Your task to perform on an android device: find snoozed emails in the gmail app Image 0: 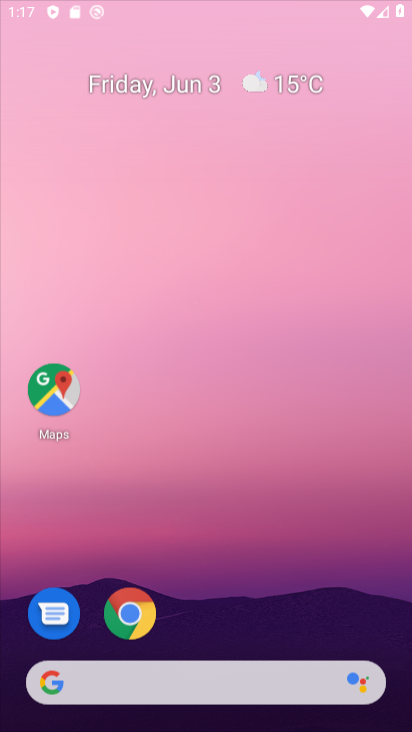
Step 0: click (371, 2)
Your task to perform on an android device: find snoozed emails in the gmail app Image 1: 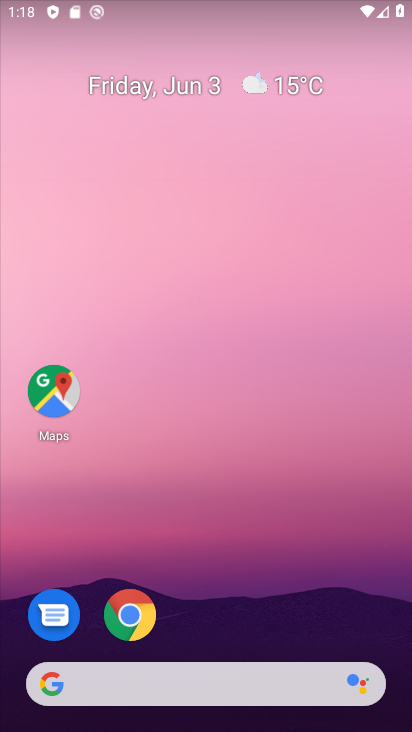
Step 1: drag from (196, 606) to (286, 195)
Your task to perform on an android device: find snoozed emails in the gmail app Image 2: 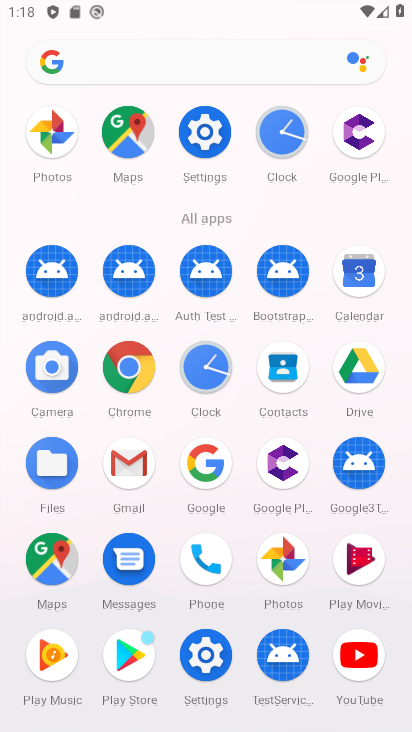
Step 2: click (133, 452)
Your task to perform on an android device: find snoozed emails in the gmail app Image 3: 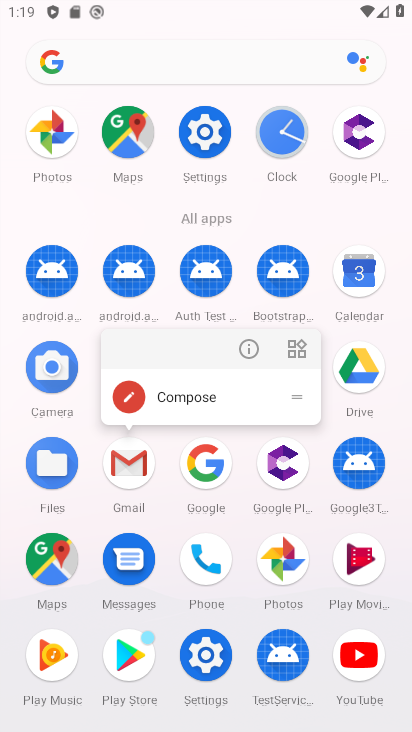
Step 3: click (126, 456)
Your task to perform on an android device: find snoozed emails in the gmail app Image 4: 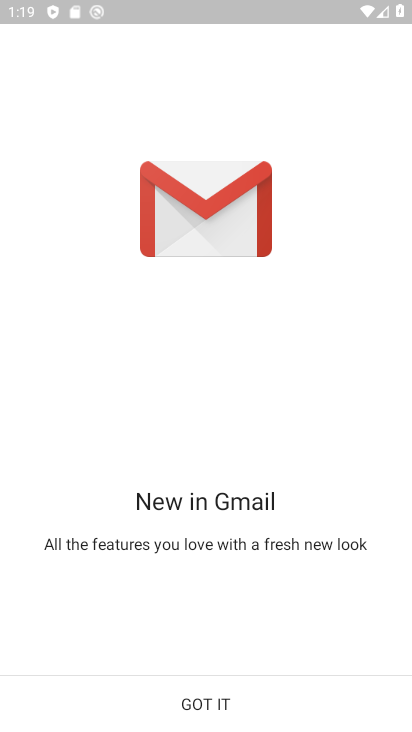
Step 4: click (206, 684)
Your task to perform on an android device: find snoozed emails in the gmail app Image 5: 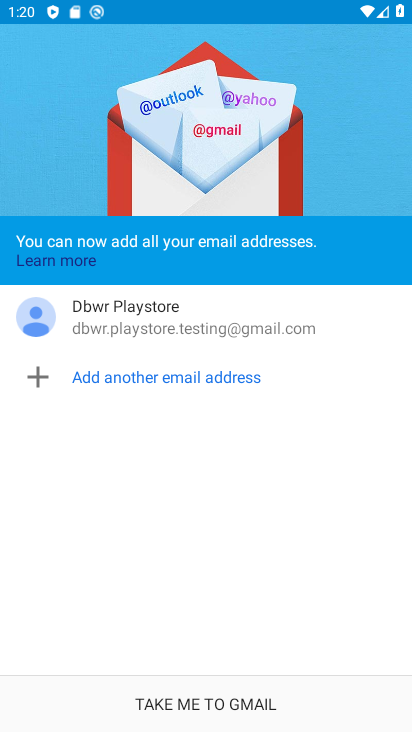
Step 5: click (193, 714)
Your task to perform on an android device: find snoozed emails in the gmail app Image 6: 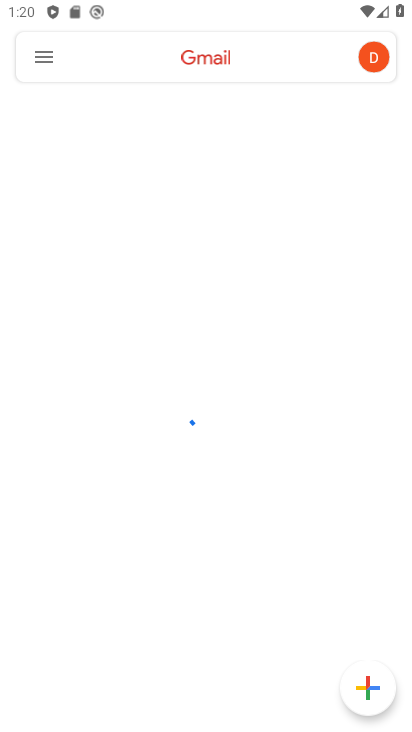
Step 6: click (47, 88)
Your task to perform on an android device: find snoozed emails in the gmail app Image 7: 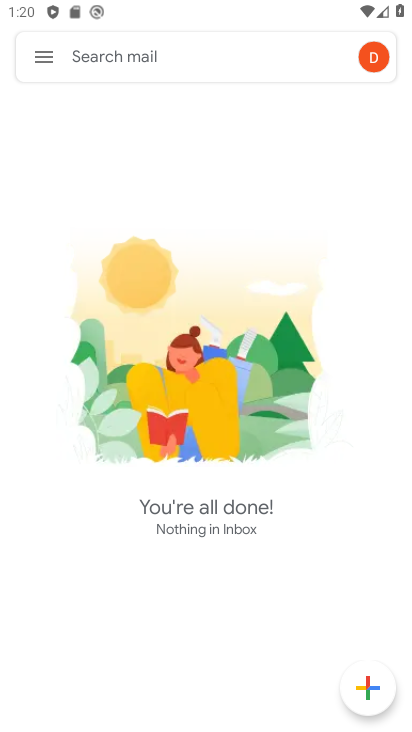
Step 7: task complete